Your task to perform on an android device: check data usage Image 0: 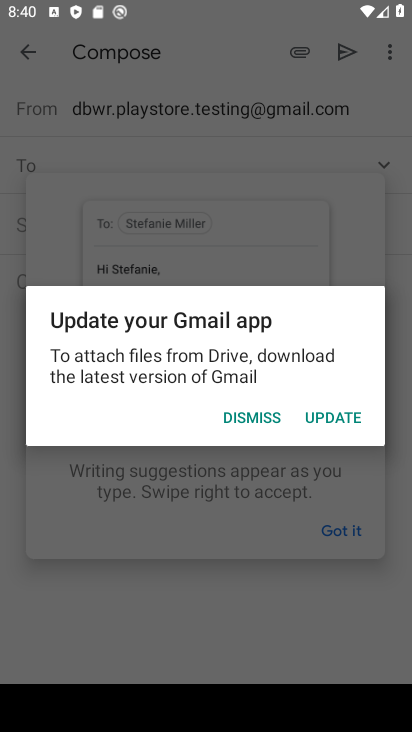
Step 0: press home button
Your task to perform on an android device: check data usage Image 1: 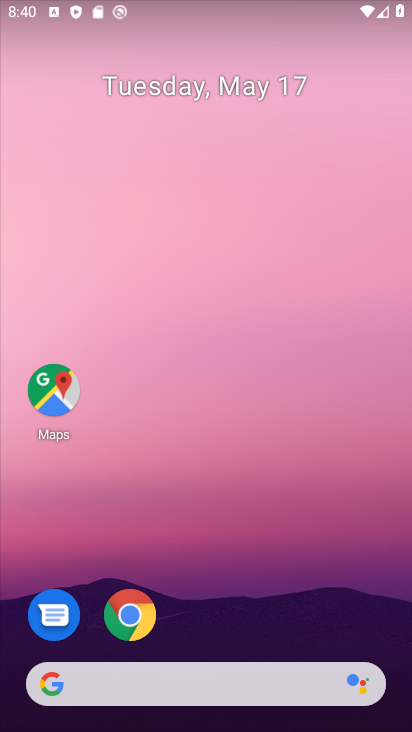
Step 1: drag from (389, 627) to (342, 114)
Your task to perform on an android device: check data usage Image 2: 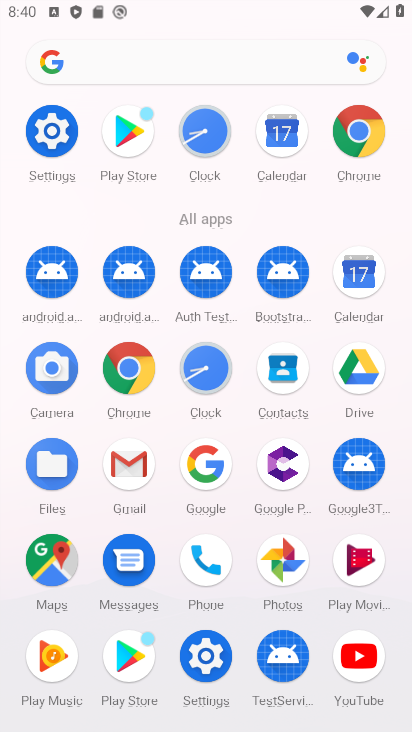
Step 2: click (207, 655)
Your task to perform on an android device: check data usage Image 3: 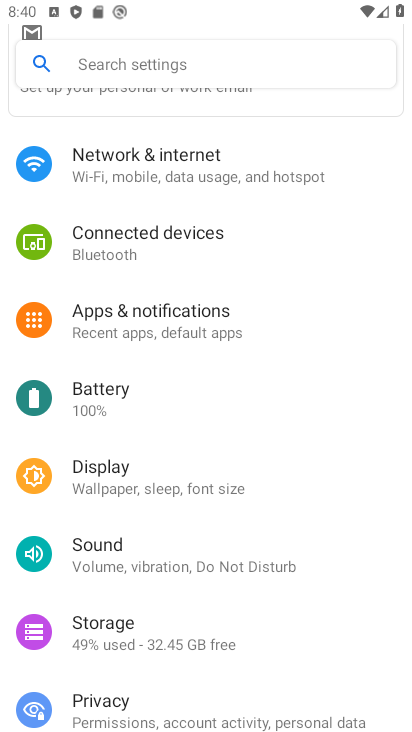
Step 3: click (116, 160)
Your task to perform on an android device: check data usage Image 4: 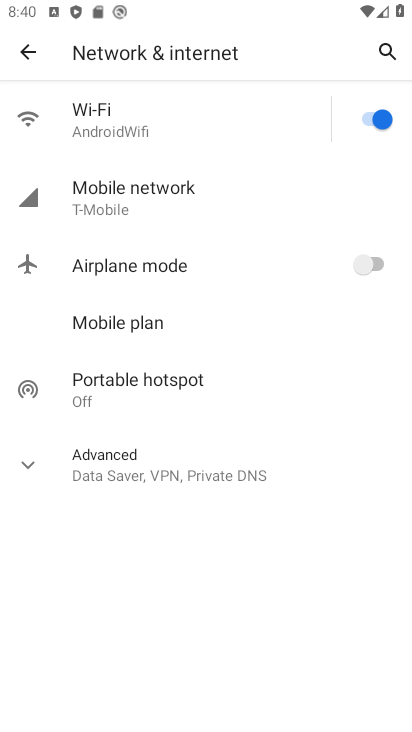
Step 4: click (21, 458)
Your task to perform on an android device: check data usage Image 5: 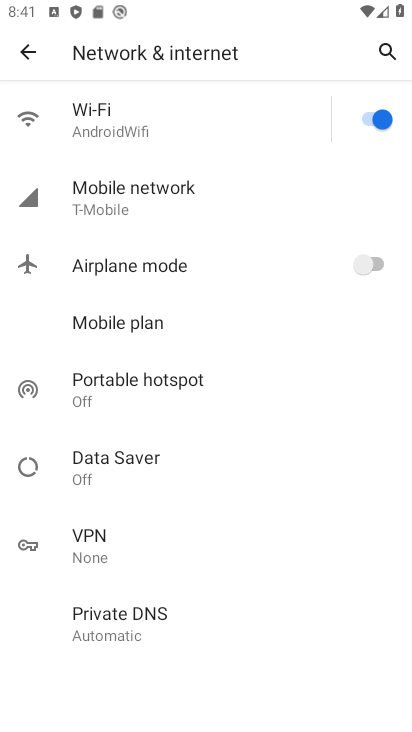
Step 5: click (95, 188)
Your task to perform on an android device: check data usage Image 6: 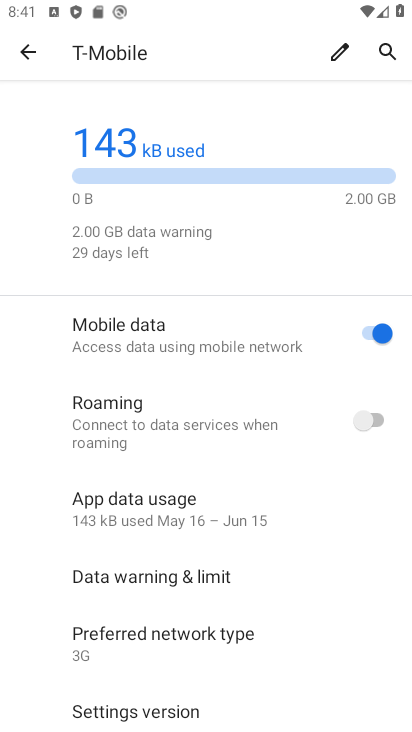
Step 6: task complete